Your task to perform on an android device: clear all cookies in the chrome app Image 0: 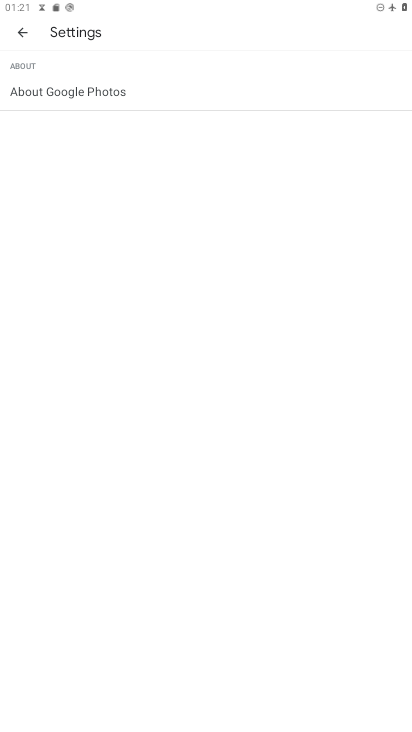
Step 0: press home button
Your task to perform on an android device: clear all cookies in the chrome app Image 1: 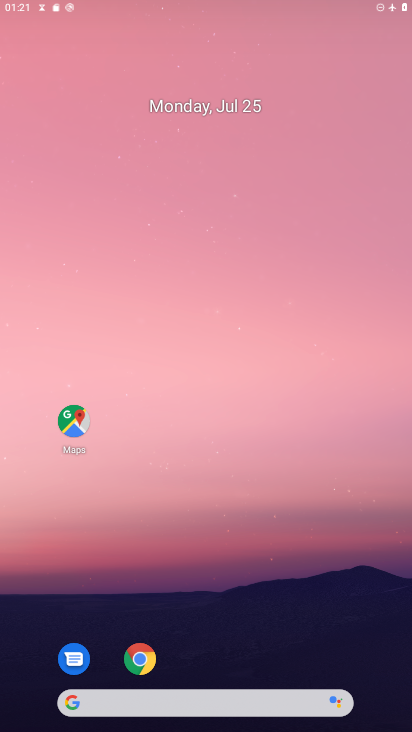
Step 1: drag from (289, 617) to (274, 118)
Your task to perform on an android device: clear all cookies in the chrome app Image 2: 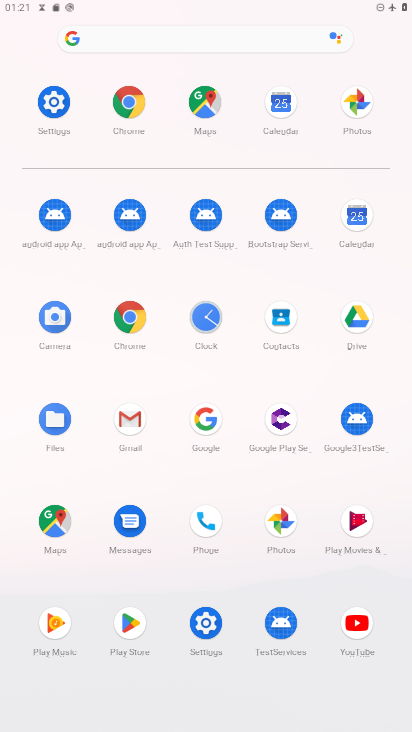
Step 2: click (129, 108)
Your task to perform on an android device: clear all cookies in the chrome app Image 3: 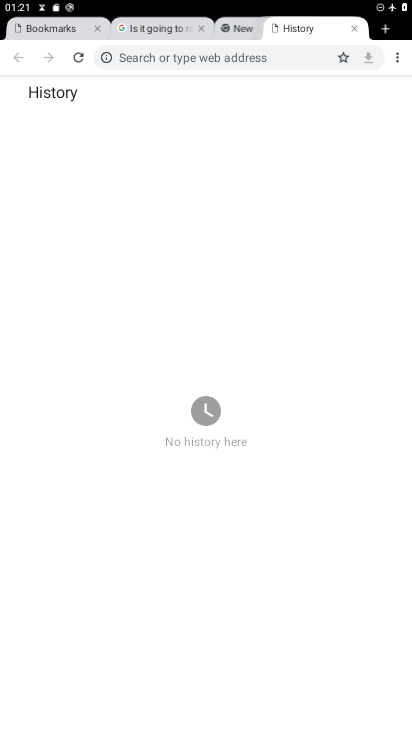
Step 3: click (400, 54)
Your task to perform on an android device: clear all cookies in the chrome app Image 4: 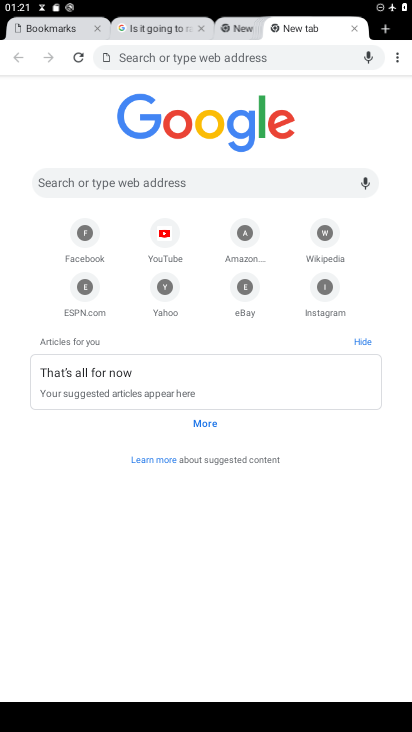
Step 4: click (401, 59)
Your task to perform on an android device: clear all cookies in the chrome app Image 5: 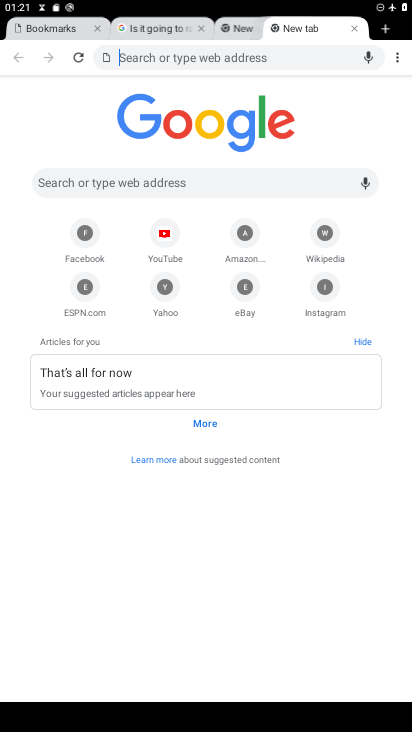
Step 5: click (401, 59)
Your task to perform on an android device: clear all cookies in the chrome app Image 6: 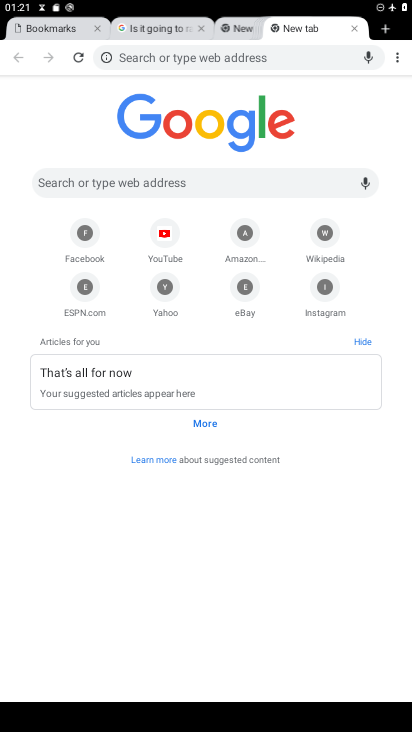
Step 6: click (401, 59)
Your task to perform on an android device: clear all cookies in the chrome app Image 7: 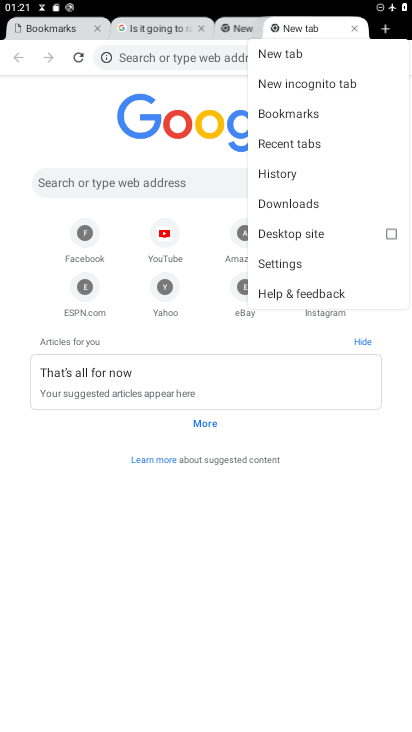
Step 7: click (269, 263)
Your task to perform on an android device: clear all cookies in the chrome app Image 8: 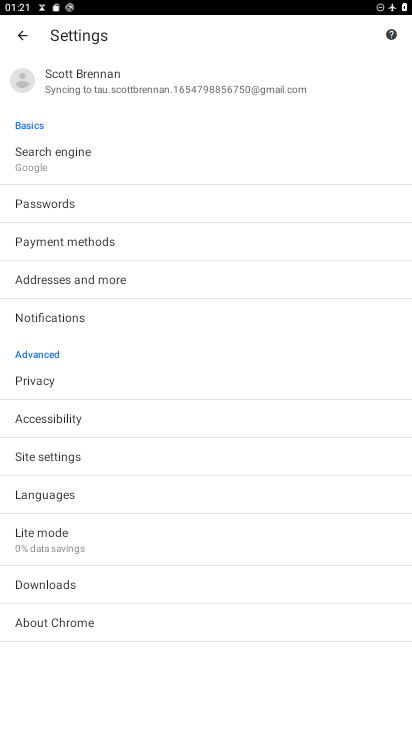
Step 8: click (33, 370)
Your task to perform on an android device: clear all cookies in the chrome app Image 9: 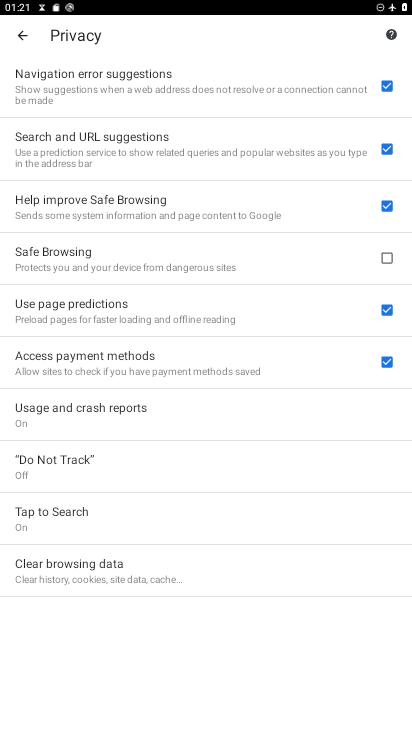
Step 9: click (98, 579)
Your task to perform on an android device: clear all cookies in the chrome app Image 10: 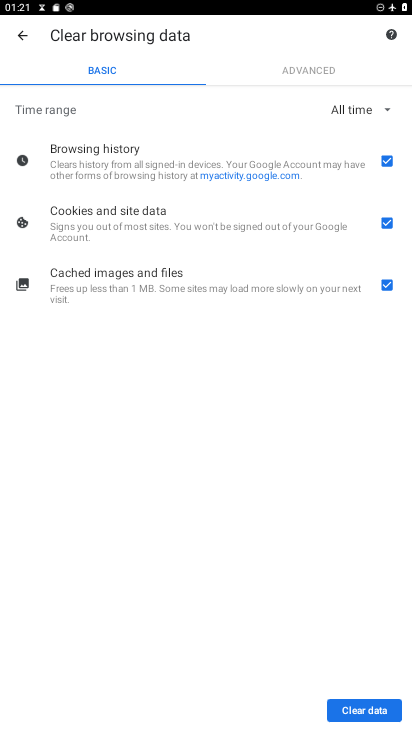
Step 10: click (359, 710)
Your task to perform on an android device: clear all cookies in the chrome app Image 11: 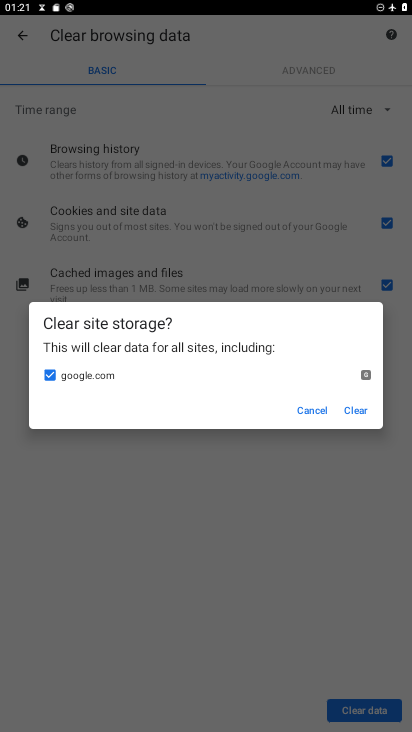
Step 11: click (358, 408)
Your task to perform on an android device: clear all cookies in the chrome app Image 12: 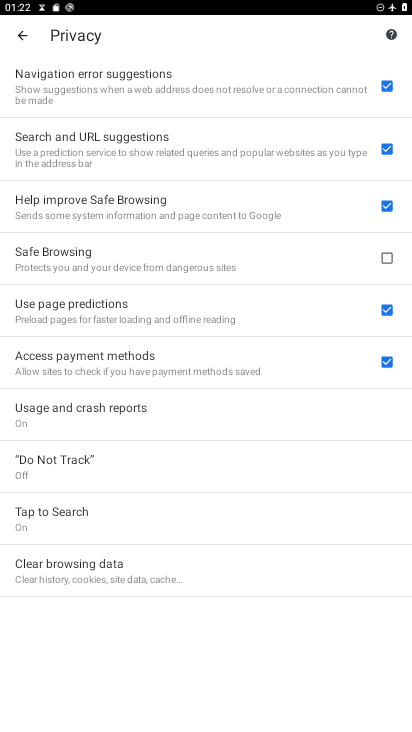
Step 12: task complete